Your task to perform on an android device: Play the last video I watched on Youtube Image 0: 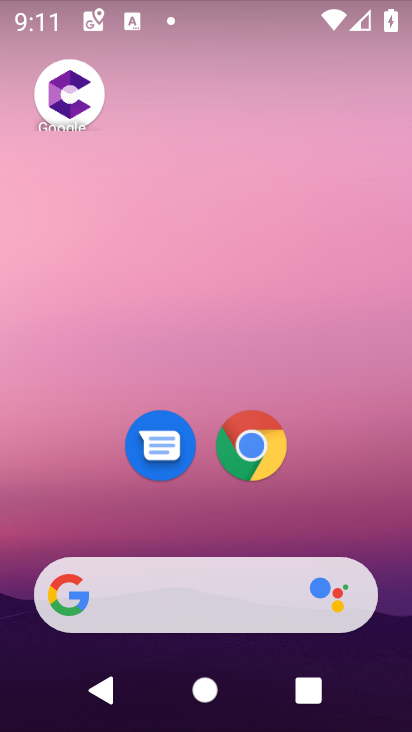
Step 0: drag from (337, 407) to (328, 14)
Your task to perform on an android device: Play the last video I watched on Youtube Image 1: 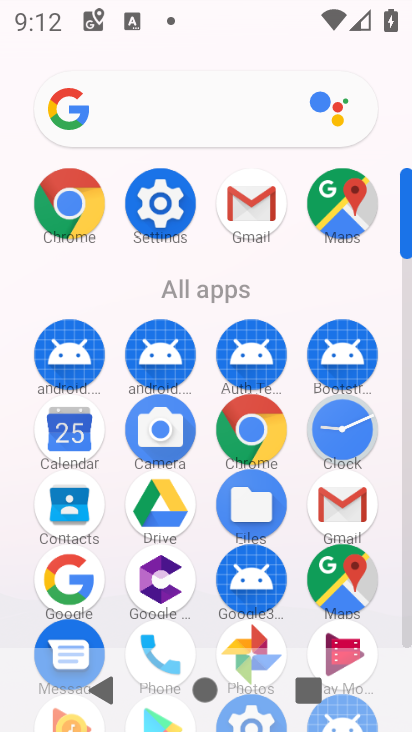
Step 1: drag from (390, 526) to (385, 175)
Your task to perform on an android device: Play the last video I watched on Youtube Image 2: 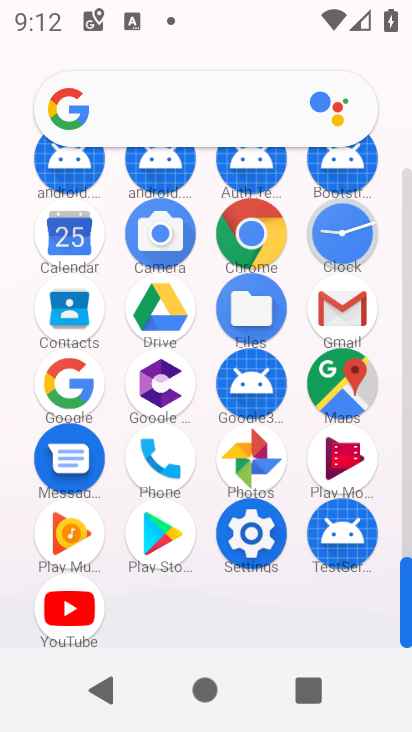
Step 2: click (87, 611)
Your task to perform on an android device: Play the last video I watched on Youtube Image 3: 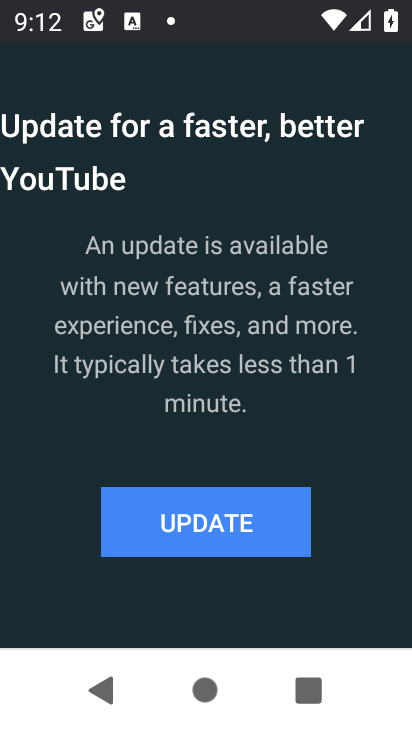
Step 3: click (216, 533)
Your task to perform on an android device: Play the last video I watched on Youtube Image 4: 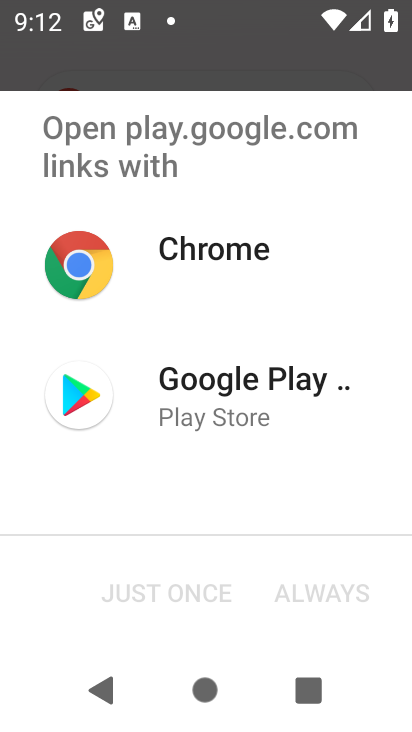
Step 4: click (151, 409)
Your task to perform on an android device: Play the last video I watched on Youtube Image 5: 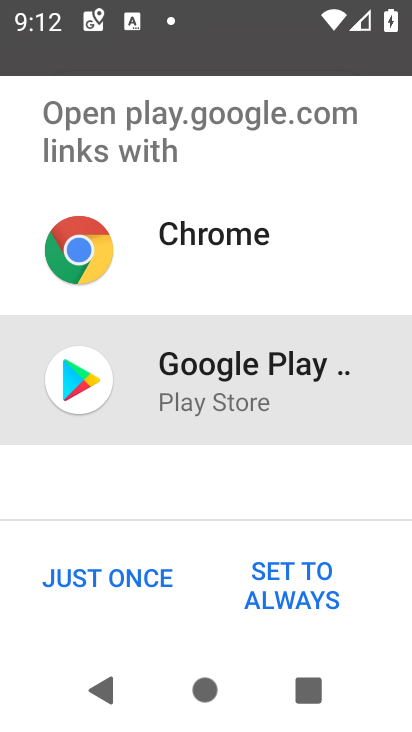
Step 5: click (169, 585)
Your task to perform on an android device: Play the last video I watched on Youtube Image 6: 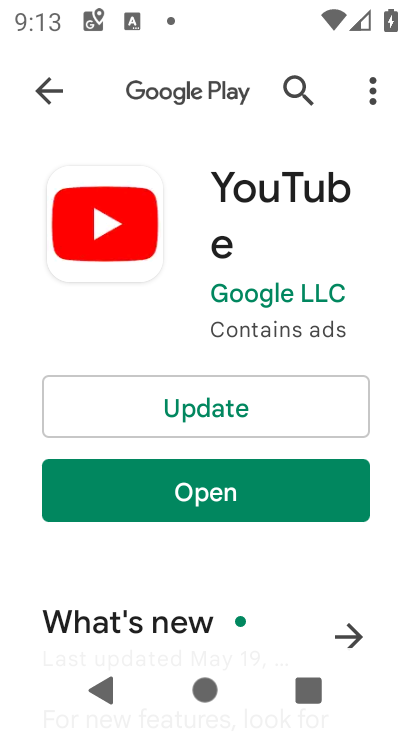
Step 6: click (242, 396)
Your task to perform on an android device: Play the last video I watched on Youtube Image 7: 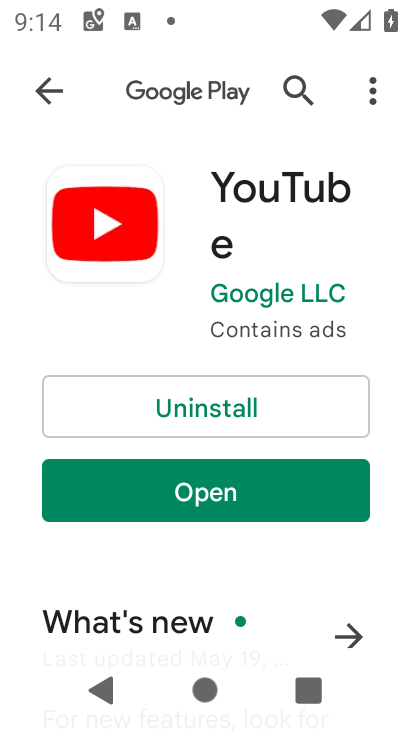
Step 7: click (201, 498)
Your task to perform on an android device: Play the last video I watched on Youtube Image 8: 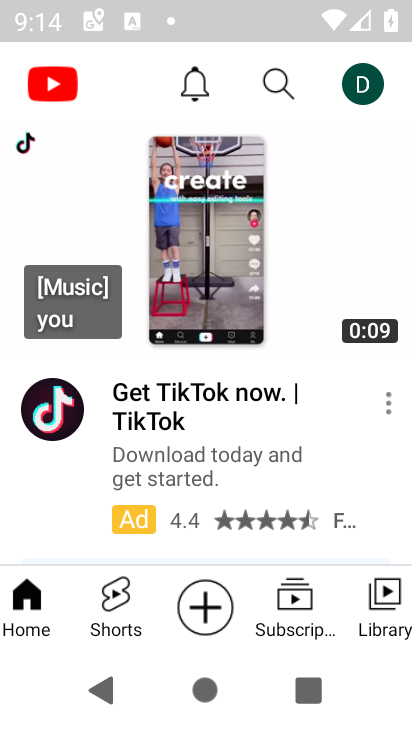
Step 8: click (364, 612)
Your task to perform on an android device: Play the last video I watched on Youtube Image 9: 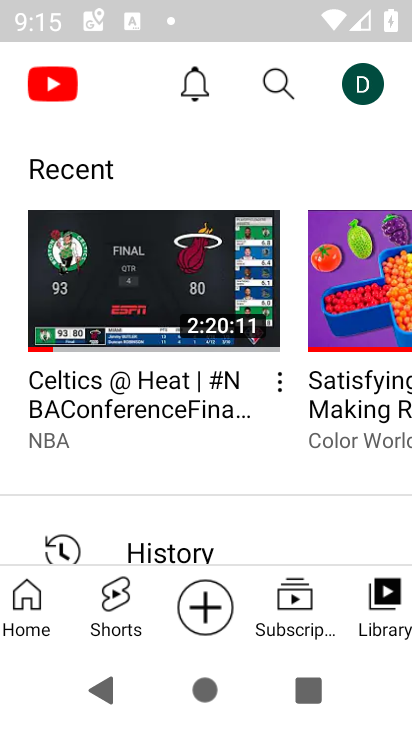
Step 9: click (388, 623)
Your task to perform on an android device: Play the last video I watched on Youtube Image 10: 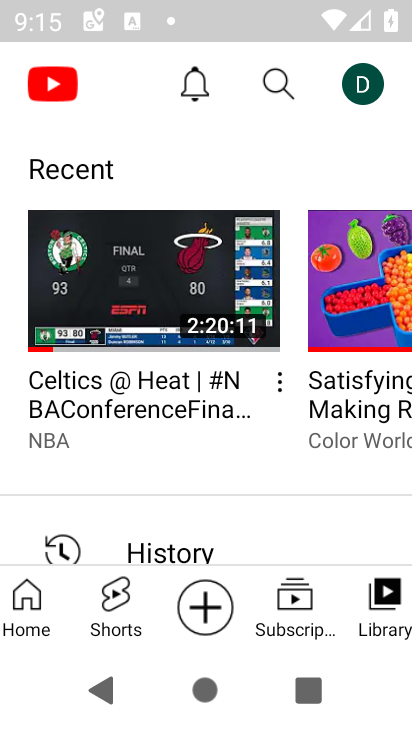
Step 10: click (190, 283)
Your task to perform on an android device: Play the last video I watched on Youtube Image 11: 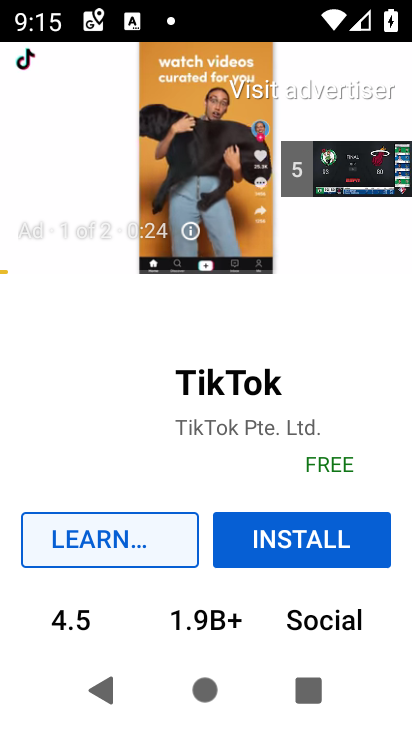
Step 11: task complete